Your task to perform on an android device: delete the emails in spam in the gmail app Image 0: 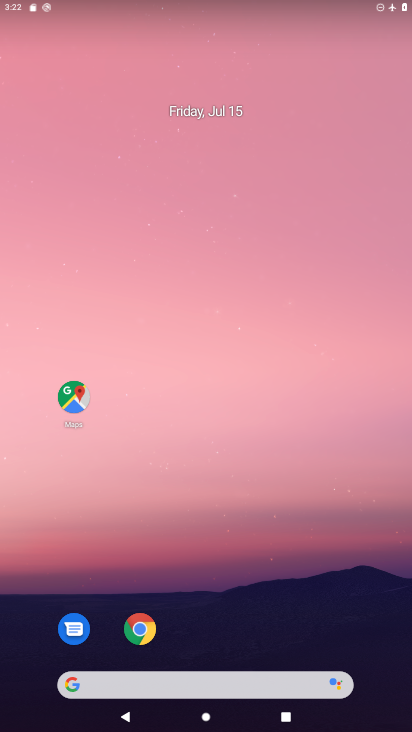
Step 0: drag from (253, 562) to (165, 12)
Your task to perform on an android device: delete the emails in spam in the gmail app Image 1: 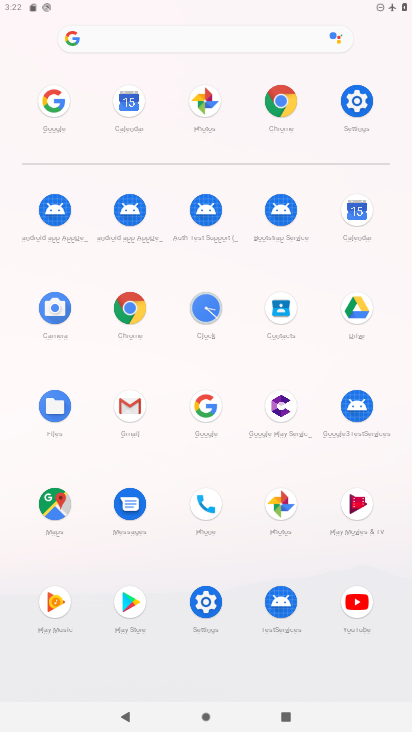
Step 1: click (137, 391)
Your task to perform on an android device: delete the emails in spam in the gmail app Image 2: 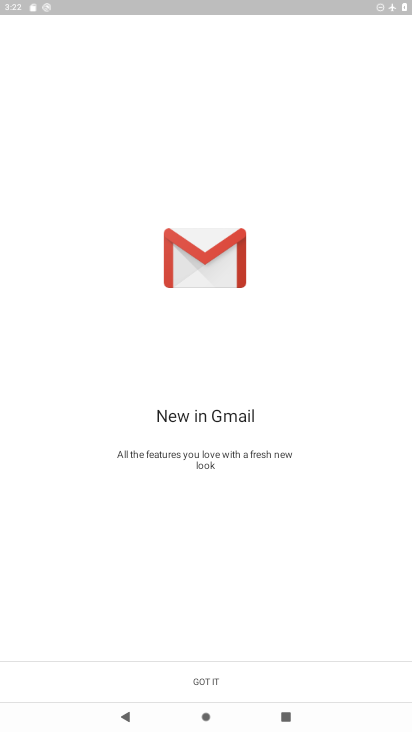
Step 2: click (207, 686)
Your task to perform on an android device: delete the emails in spam in the gmail app Image 3: 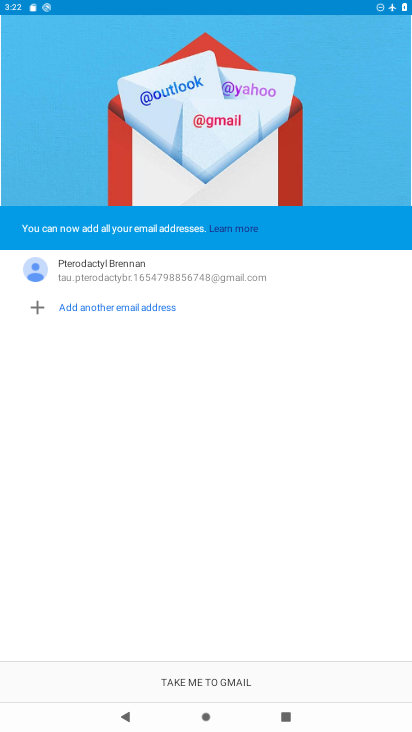
Step 3: click (187, 670)
Your task to perform on an android device: delete the emails in spam in the gmail app Image 4: 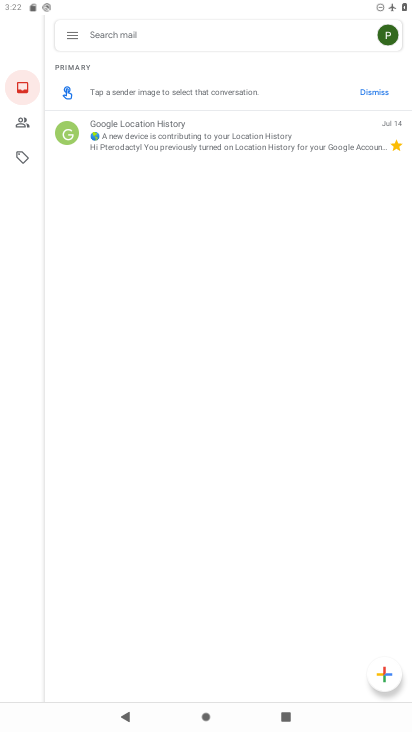
Step 4: click (69, 37)
Your task to perform on an android device: delete the emails in spam in the gmail app Image 5: 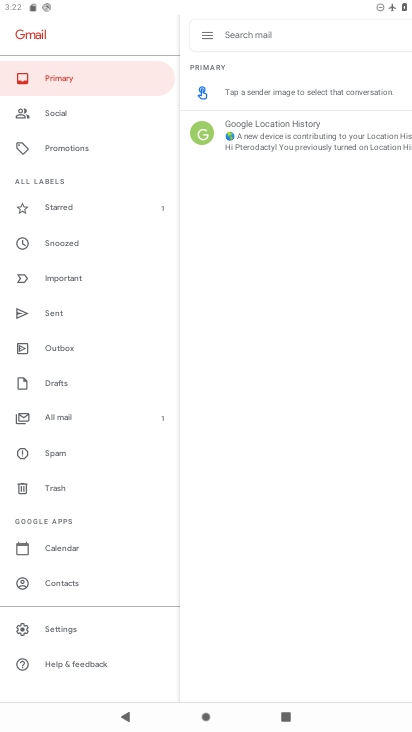
Step 5: click (75, 445)
Your task to perform on an android device: delete the emails in spam in the gmail app Image 6: 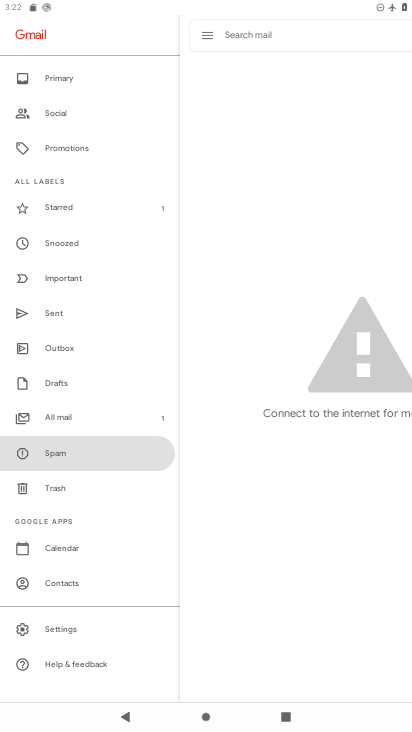
Step 6: task complete